Your task to perform on an android device: turn pop-ups on in chrome Image 0: 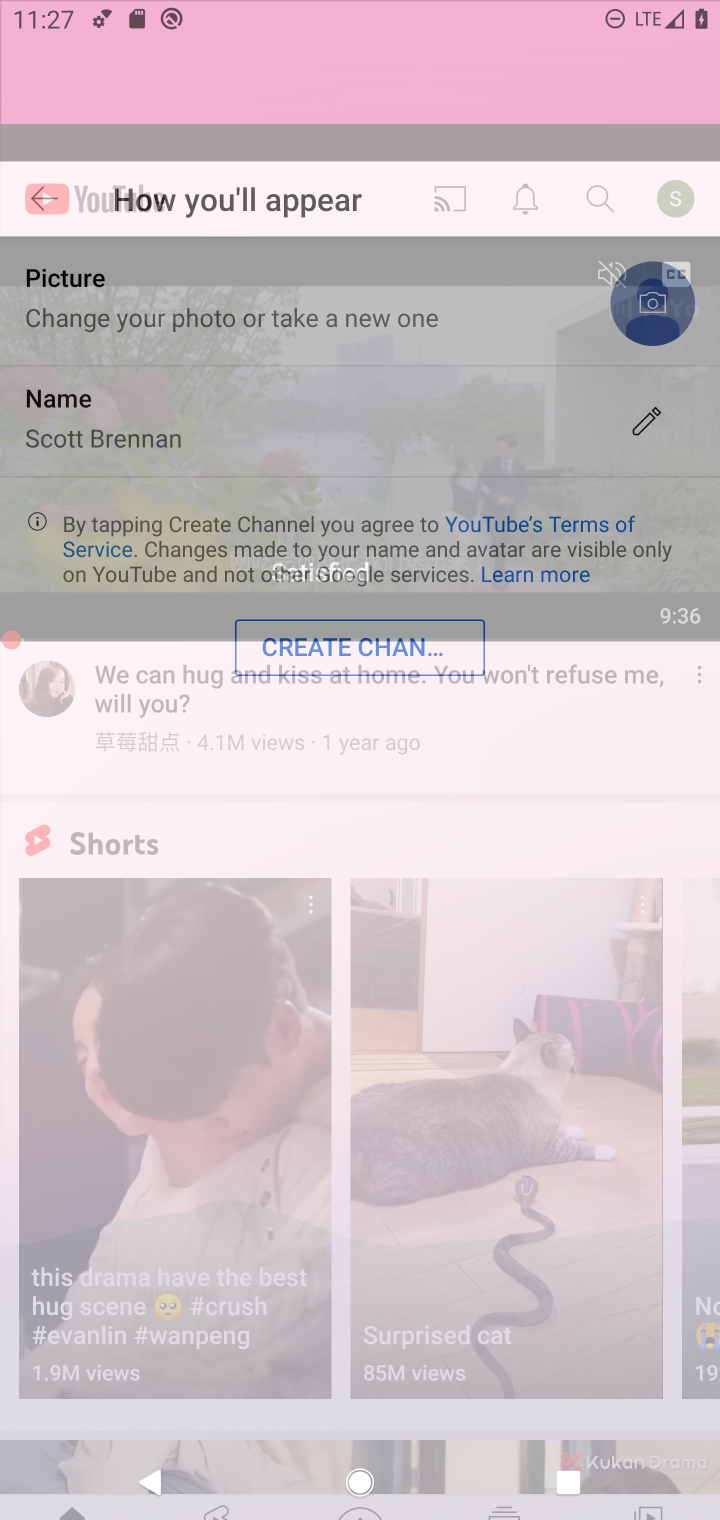
Step 0: press home button
Your task to perform on an android device: turn pop-ups on in chrome Image 1: 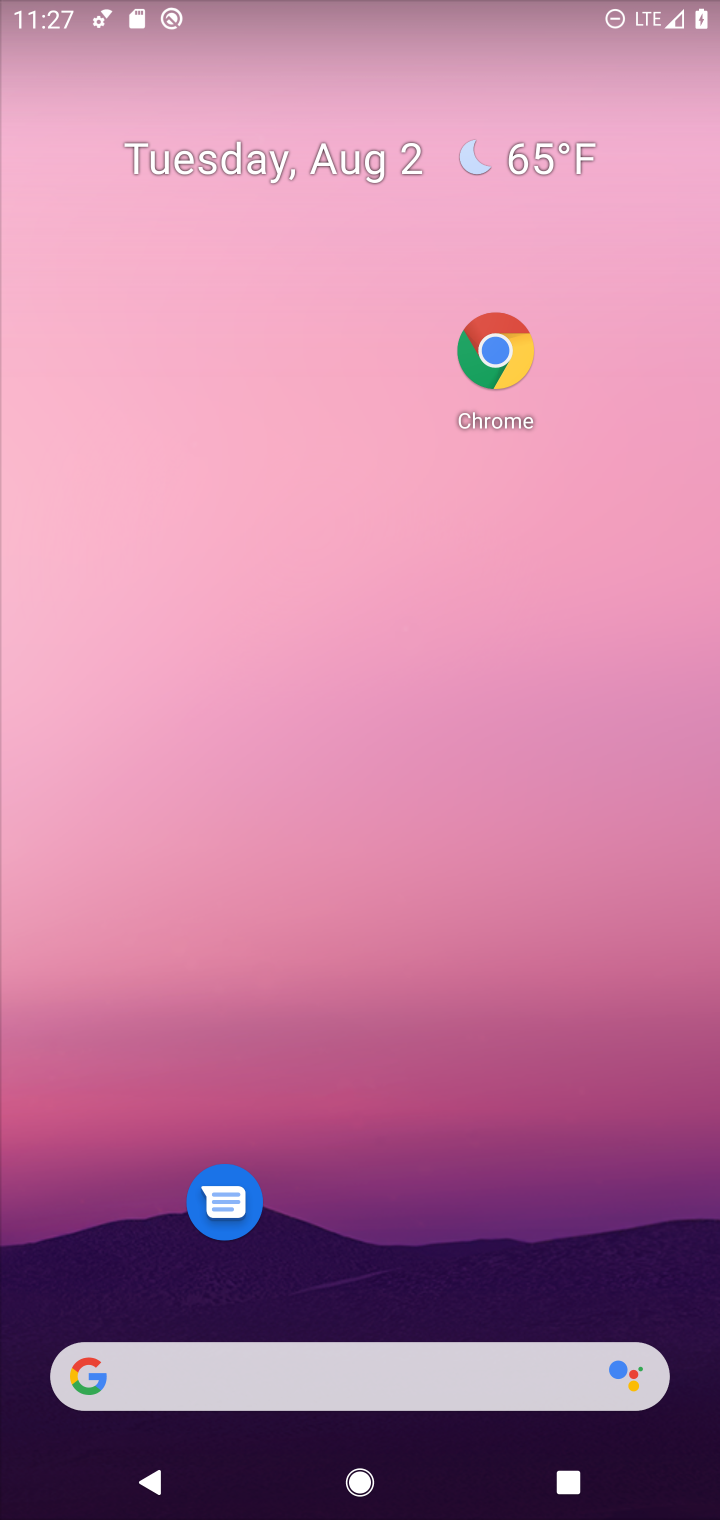
Step 1: click (493, 383)
Your task to perform on an android device: turn pop-ups on in chrome Image 2: 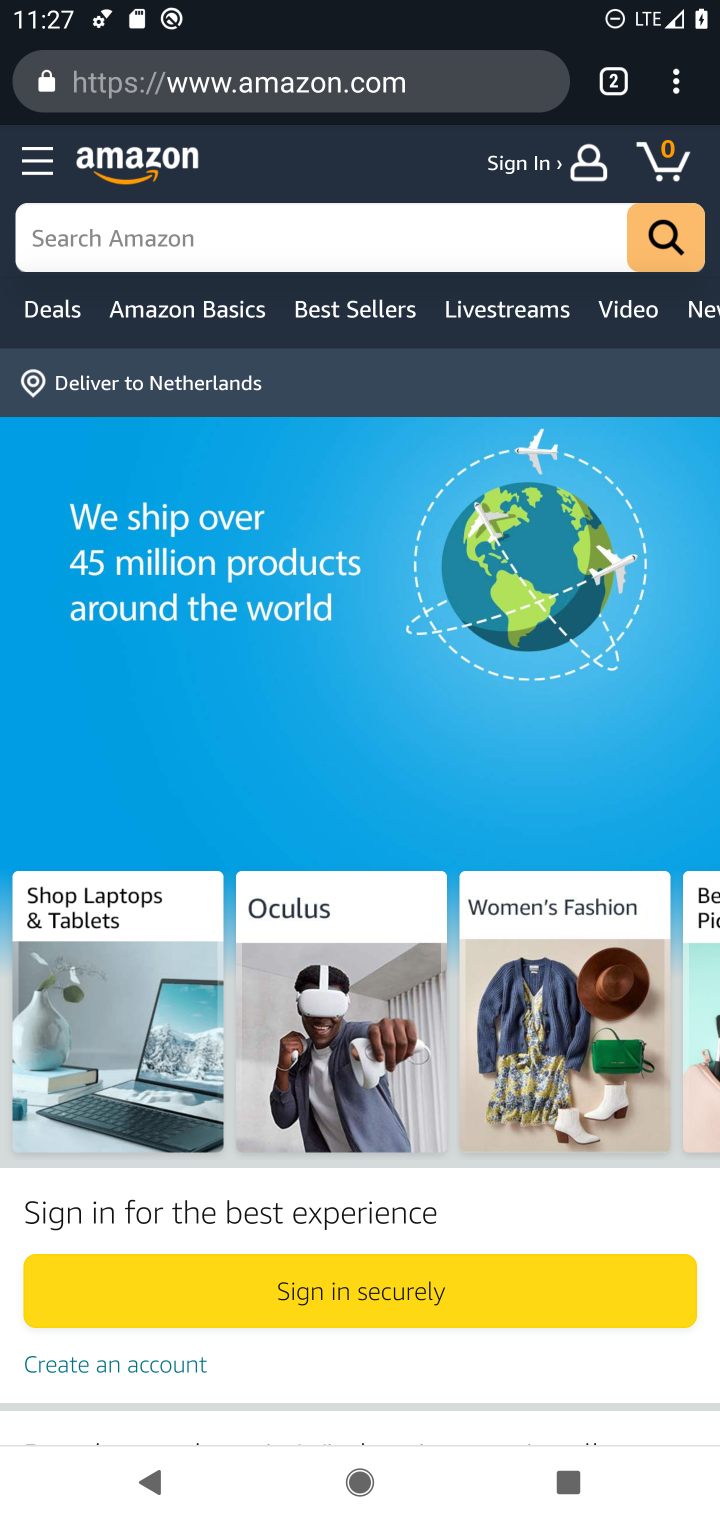
Step 2: drag from (686, 77) to (434, 990)
Your task to perform on an android device: turn pop-ups on in chrome Image 3: 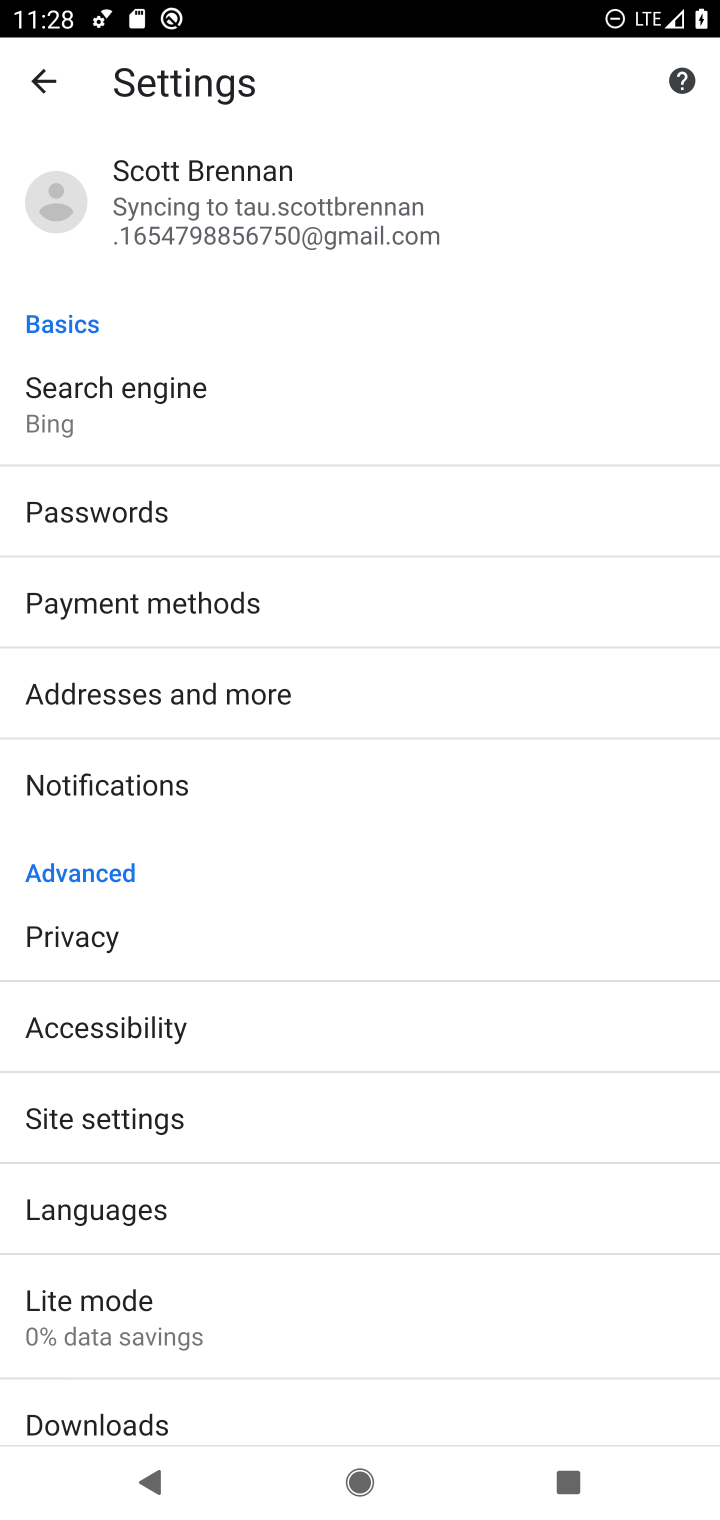
Step 3: click (134, 1132)
Your task to perform on an android device: turn pop-ups on in chrome Image 4: 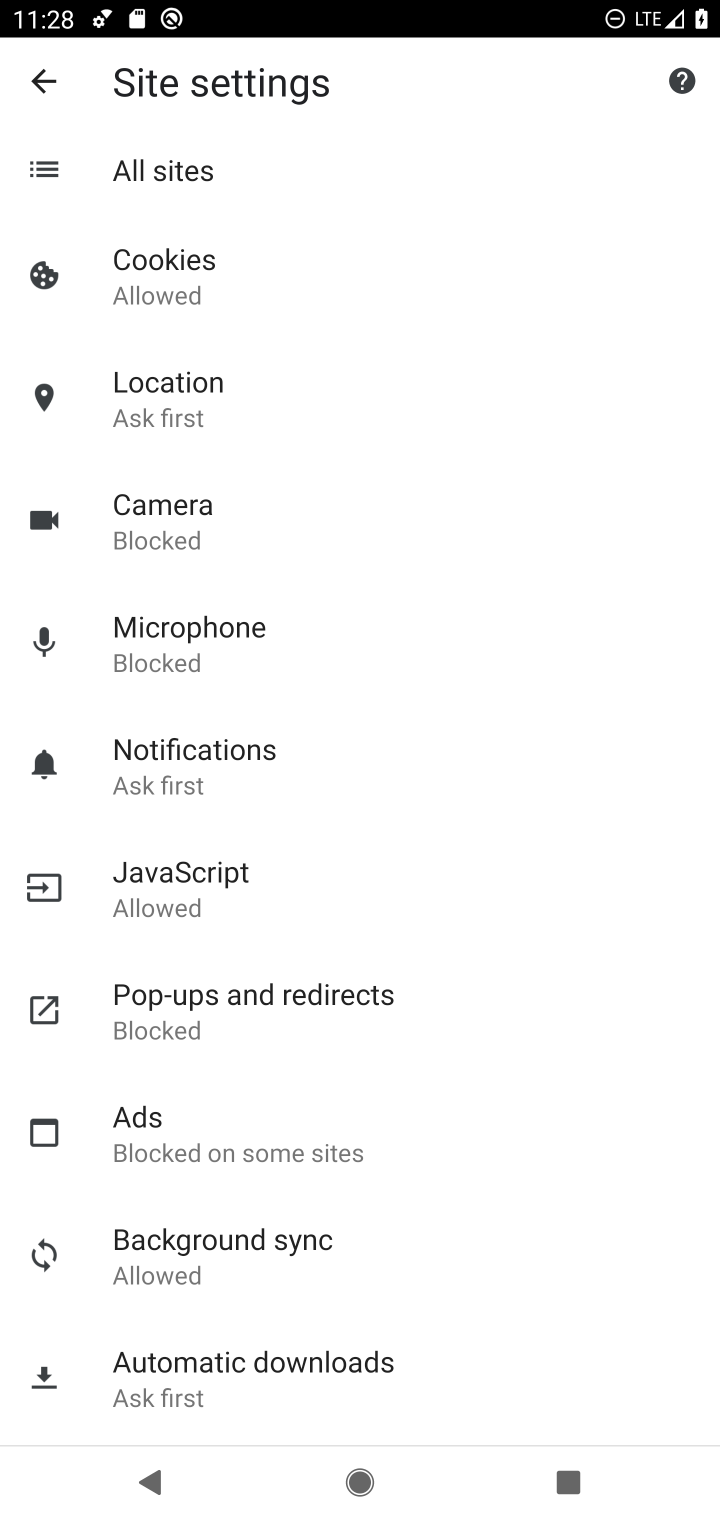
Step 4: click (191, 1014)
Your task to perform on an android device: turn pop-ups on in chrome Image 5: 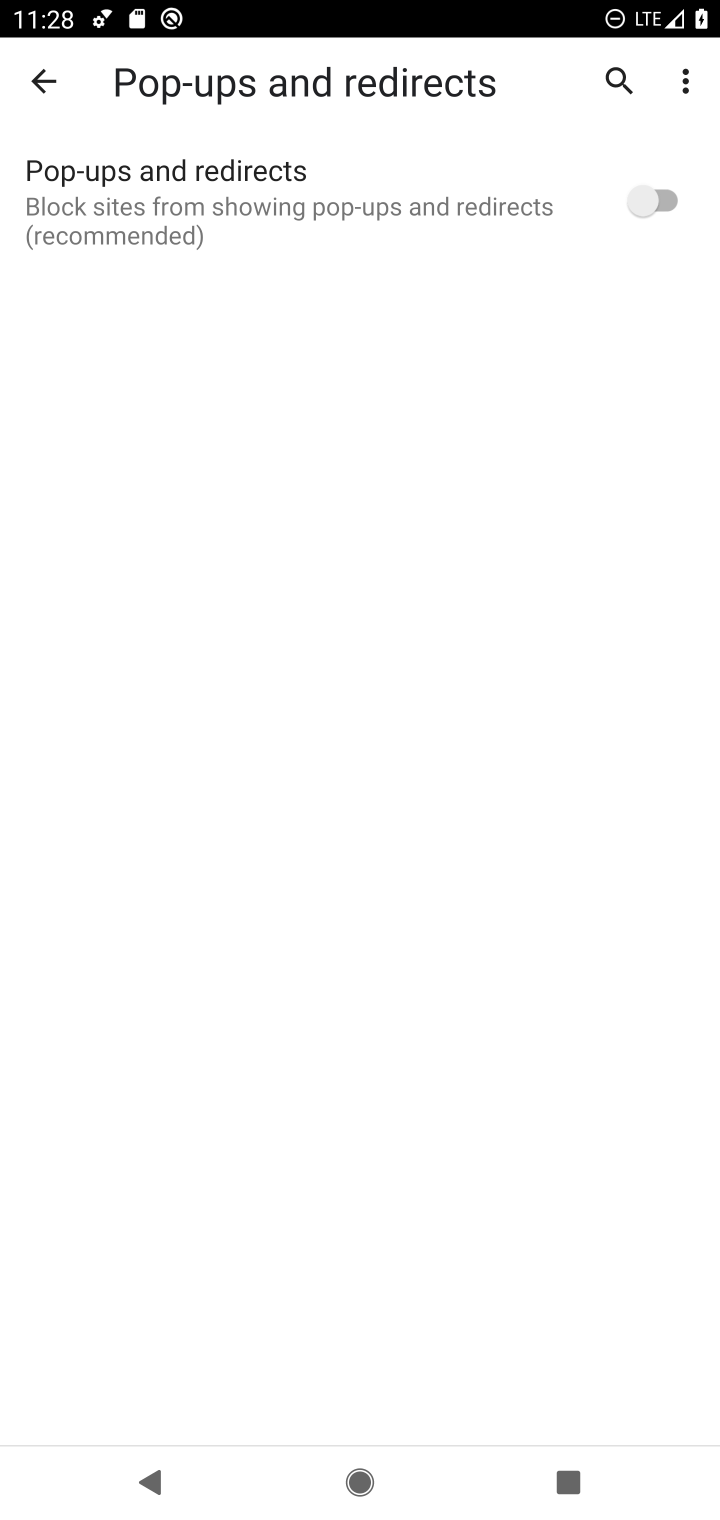
Step 5: click (641, 192)
Your task to perform on an android device: turn pop-ups on in chrome Image 6: 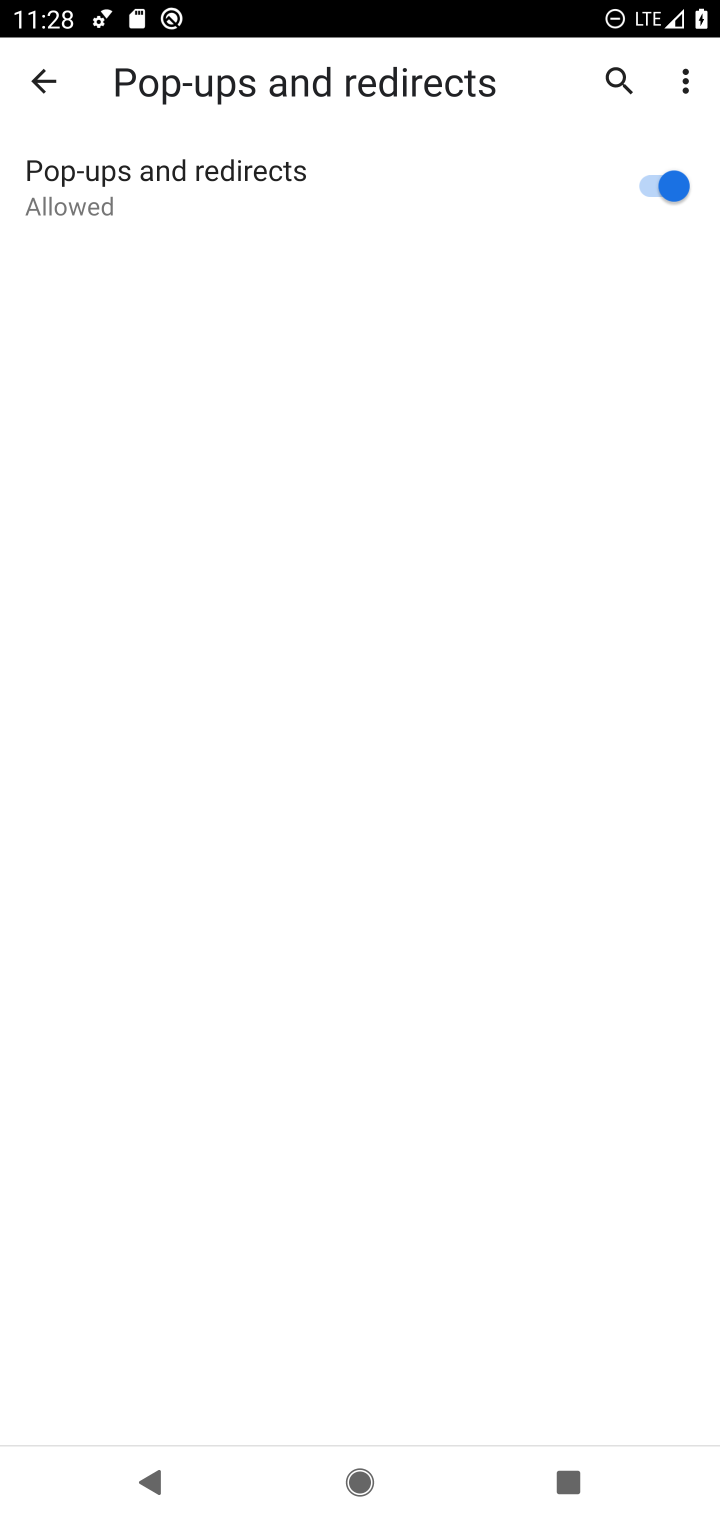
Step 6: task complete